Your task to perform on an android device: turn on priority inbox in the gmail app Image 0: 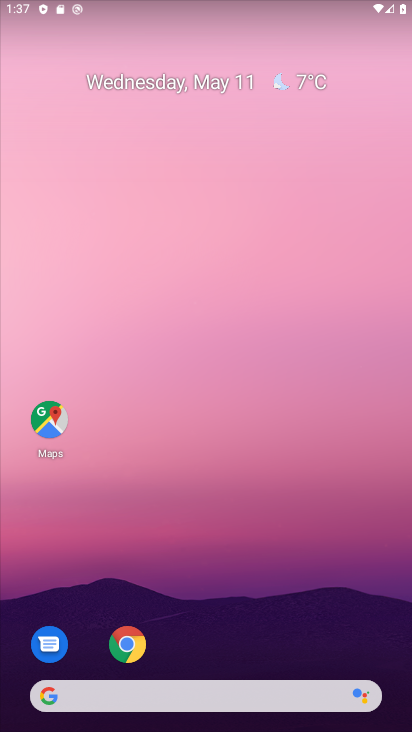
Step 0: drag from (243, 678) to (305, 149)
Your task to perform on an android device: turn on priority inbox in the gmail app Image 1: 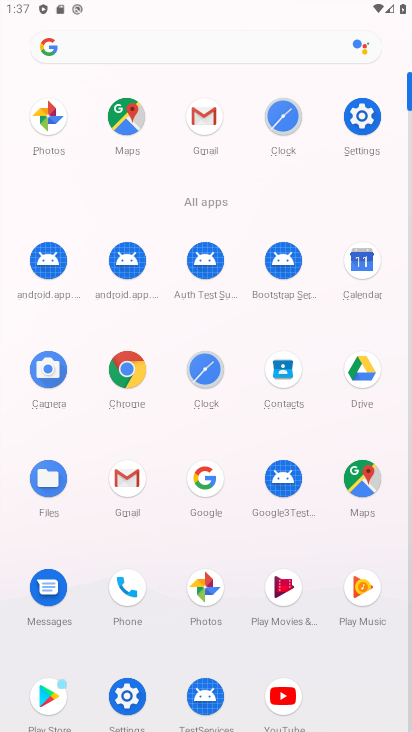
Step 1: click (201, 112)
Your task to perform on an android device: turn on priority inbox in the gmail app Image 2: 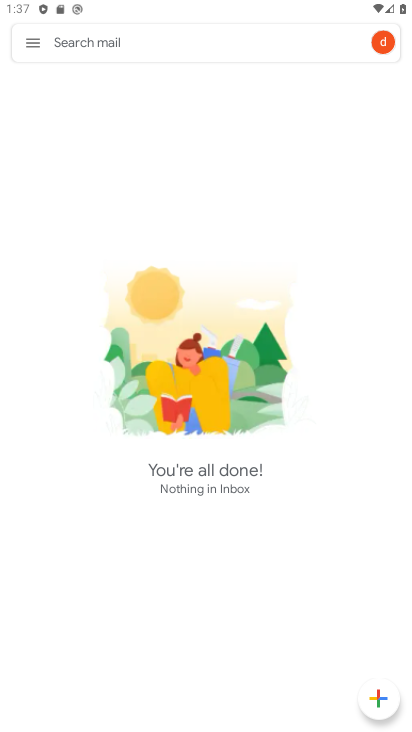
Step 2: click (32, 50)
Your task to perform on an android device: turn on priority inbox in the gmail app Image 3: 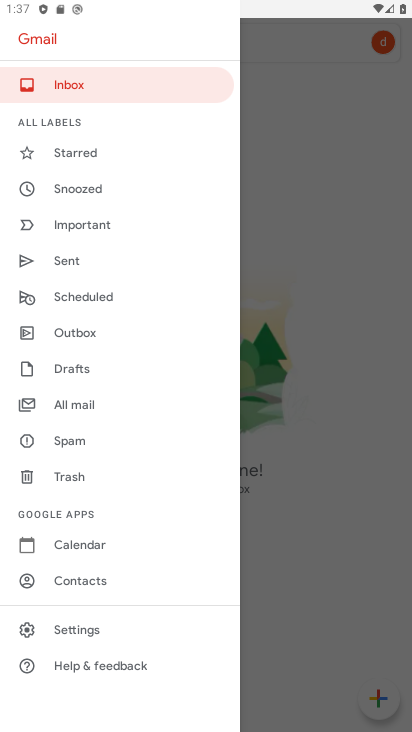
Step 3: drag from (75, 537) to (171, 281)
Your task to perform on an android device: turn on priority inbox in the gmail app Image 4: 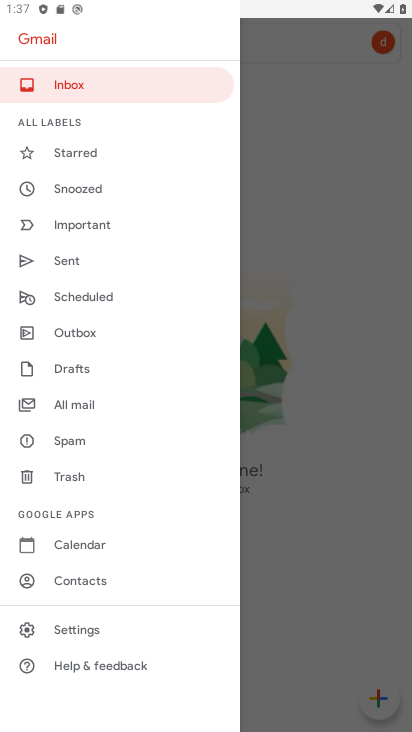
Step 4: click (85, 633)
Your task to perform on an android device: turn on priority inbox in the gmail app Image 5: 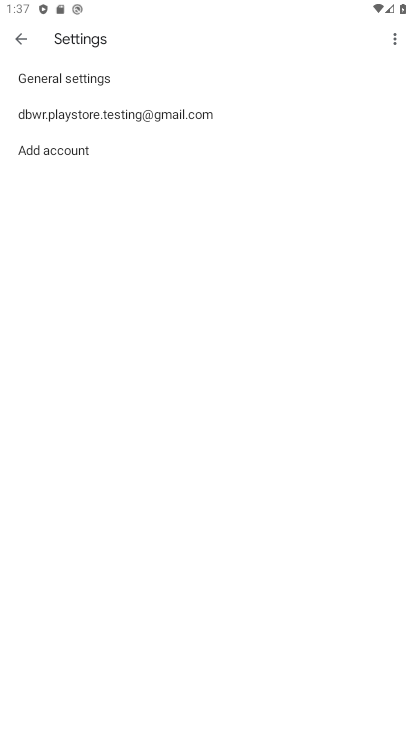
Step 5: click (110, 100)
Your task to perform on an android device: turn on priority inbox in the gmail app Image 6: 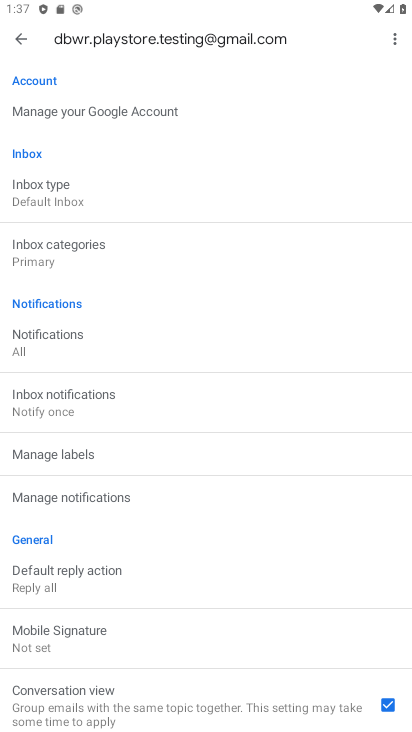
Step 6: drag from (106, 149) to (187, 284)
Your task to perform on an android device: turn on priority inbox in the gmail app Image 7: 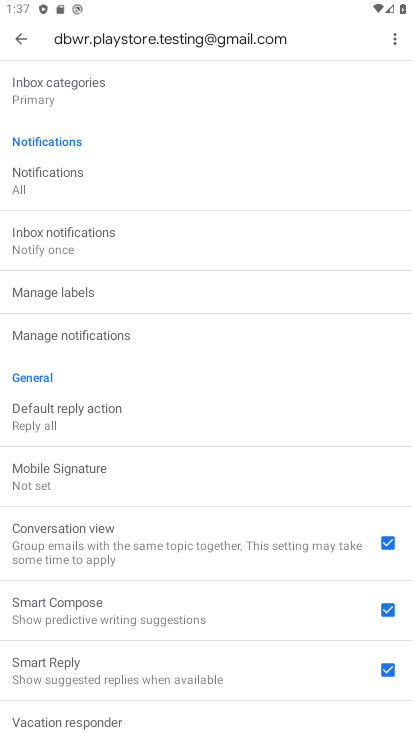
Step 7: drag from (129, 604) to (332, 232)
Your task to perform on an android device: turn on priority inbox in the gmail app Image 8: 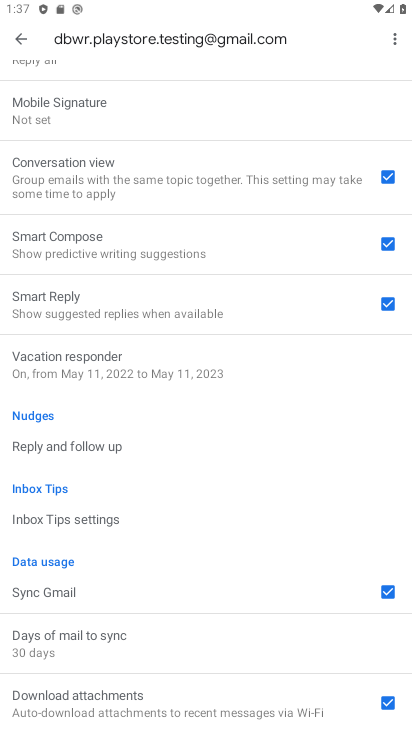
Step 8: drag from (266, 211) to (269, 552)
Your task to perform on an android device: turn on priority inbox in the gmail app Image 9: 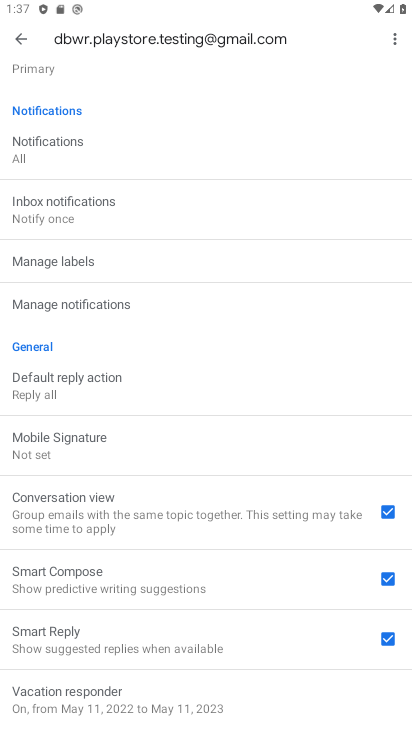
Step 9: drag from (125, 215) to (213, 651)
Your task to perform on an android device: turn on priority inbox in the gmail app Image 10: 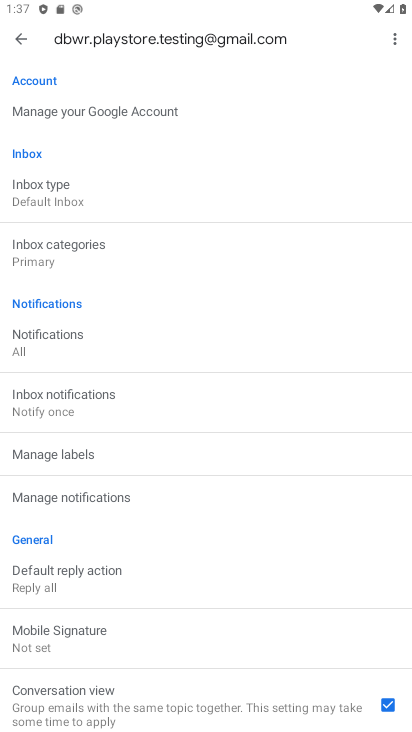
Step 10: click (108, 201)
Your task to perform on an android device: turn on priority inbox in the gmail app Image 11: 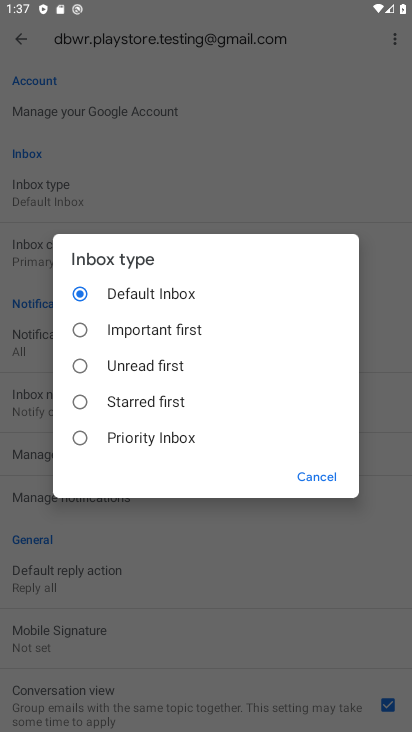
Step 11: click (132, 438)
Your task to perform on an android device: turn on priority inbox in the gmail app Image 12: 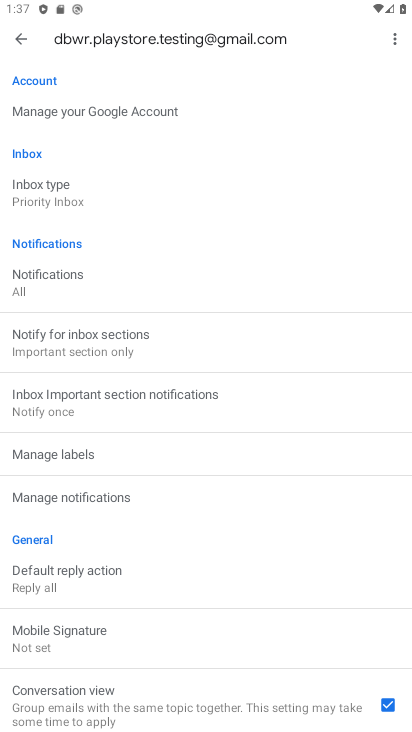
Step 12: task complete